Your task to perform on an android device: Open Reddit.com Image 0: 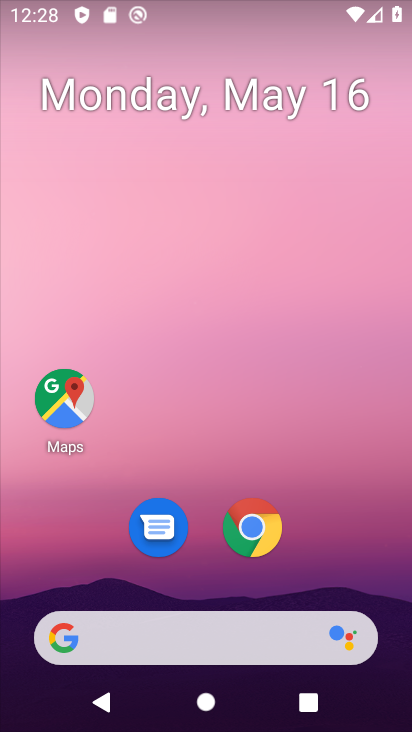
Step 0: press home button
Your task to perform on an android device: Open Reddit.com Image 1: 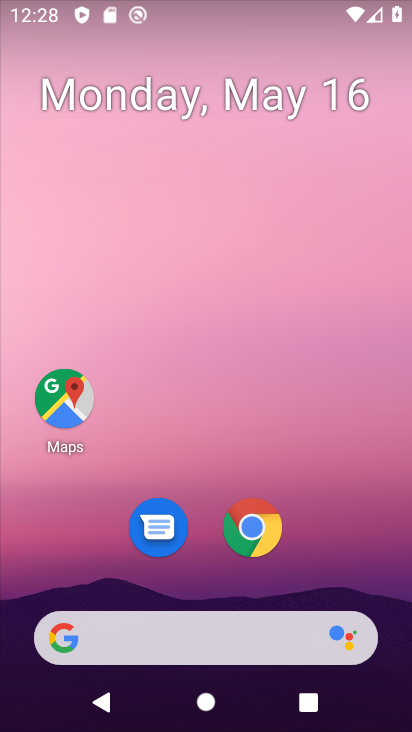
Step 1: click (253, 540)
Your task to perform on an android device: Open Reddit.com Image 2: 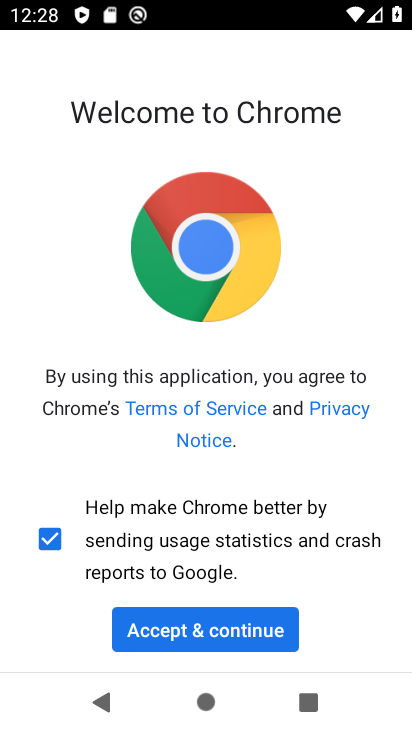
Step 2: click (225, 628)
Your task to perform on an android device: Open Reddit.com Image 3: 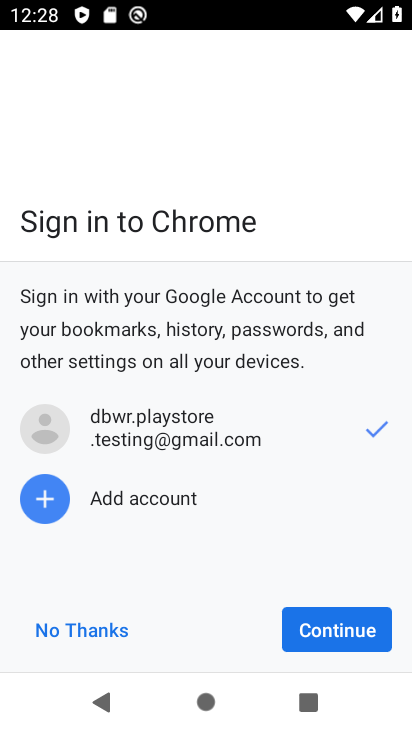
Step 3: click (322, 631)
Your task to perform on an android device: Open Reddit.com Image 4: 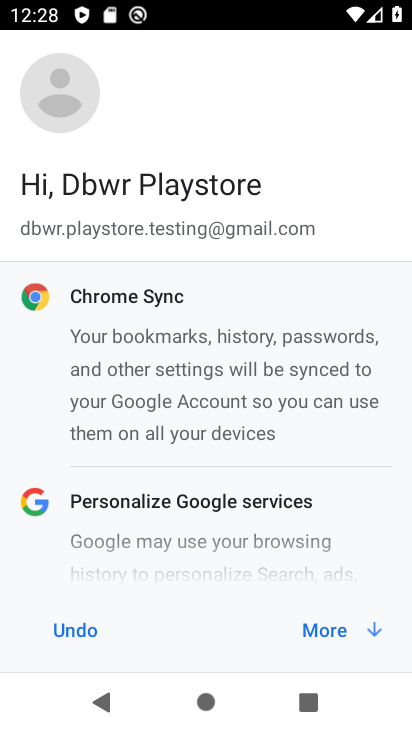
Step 4: click (322, 631)
Your task to perform on an android device: Open Reddit.com Image 5: 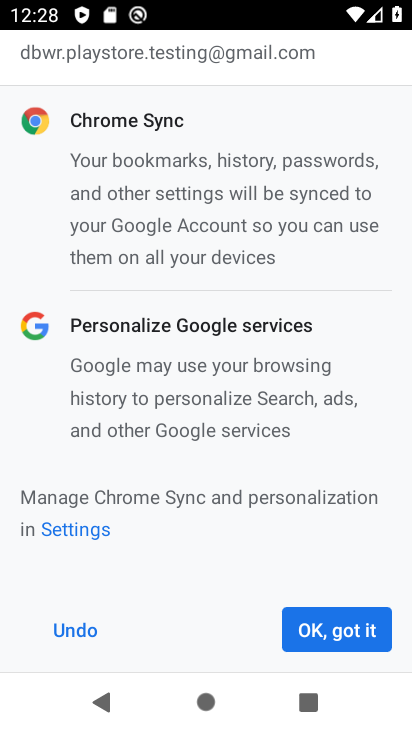
Step 5: click (322, 631)
Your task to perform on an android device: Open Reddit.com Image 6: 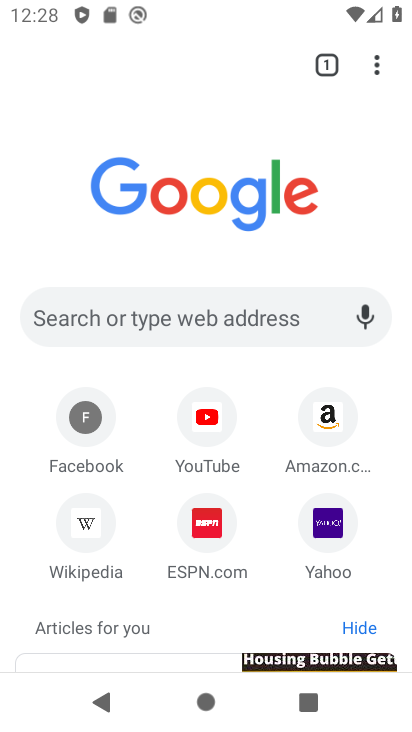
Step 6: click (126, 323)
Your task to perform on an android device: Open Reddit.com Image 7: 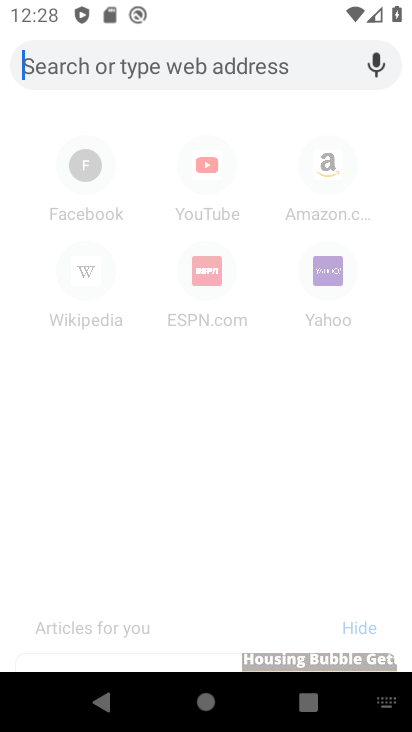
Step 7: type "reddit.com"
Your task to perform on an android device: Open Reddit.com Image 8: 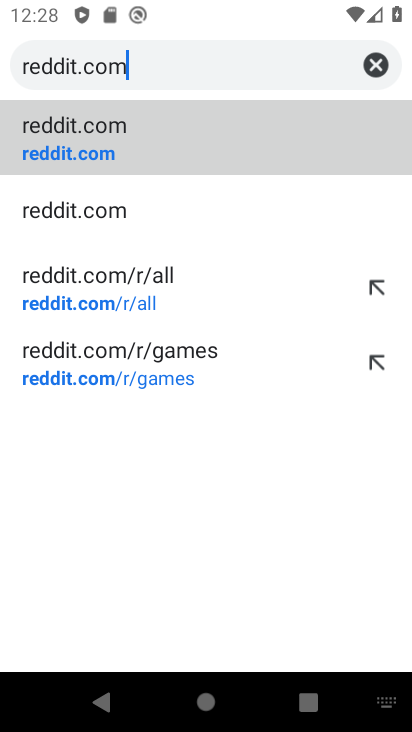
Step 8: click (135, 152)
Your task to perform on an android device: Open Reddit.com Image 9: 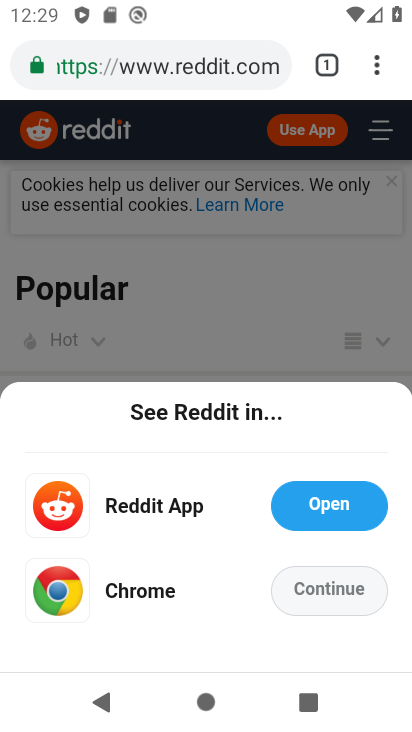
Step 9: task complete